Your task to perform on an android device: turn on wifi Image 0: 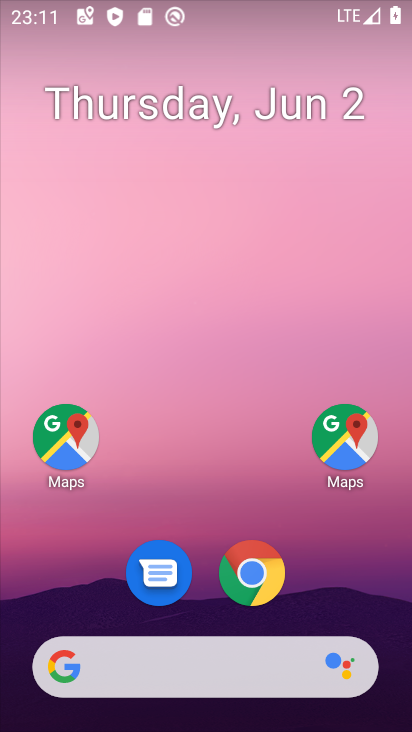
Step 0: drag from (264, 460) to (280, 147)
Your task to perform on an android device: turn on wifi Image 1: 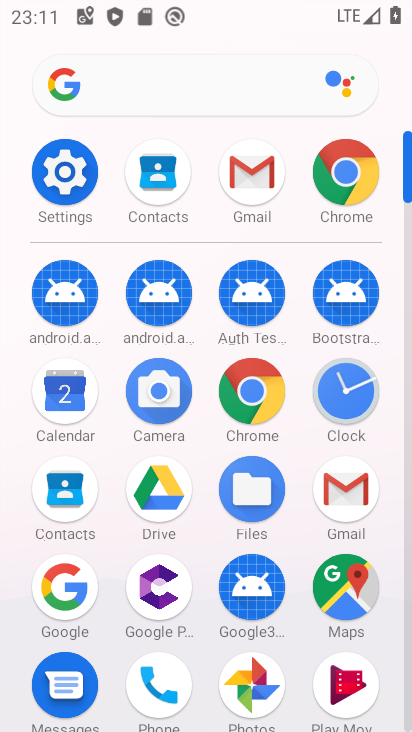
Step 1: click (72, 187)
Your task to perform on an android device: turn on wifi Image 2: 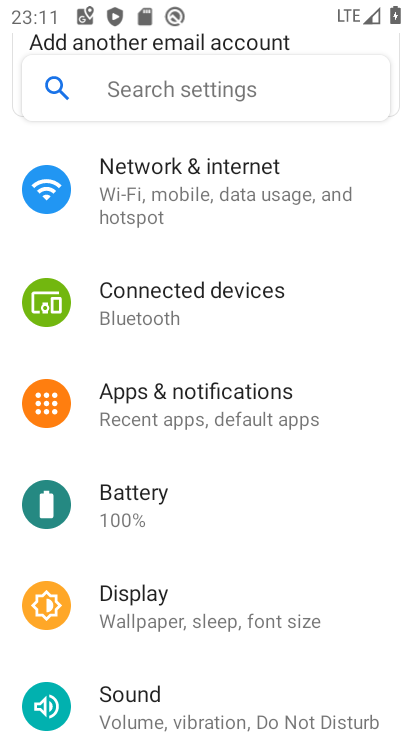
Step 2: click (78, 179)
Your task to perform on an android device: turn on wifi Image 3: 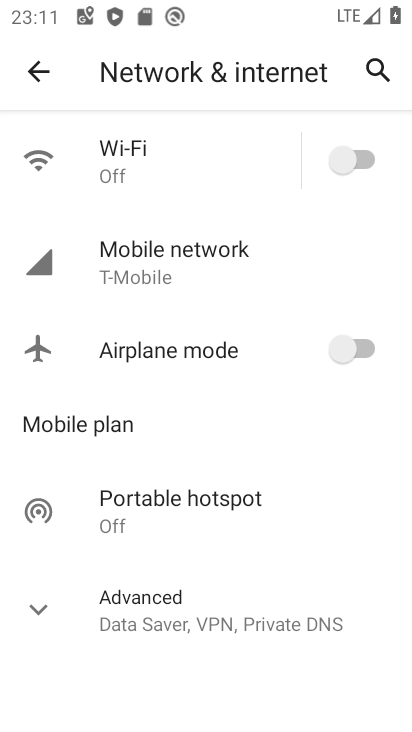
Step 3: click (280, 159)
Your task to perform on an android device: turn on wifi Image 4: 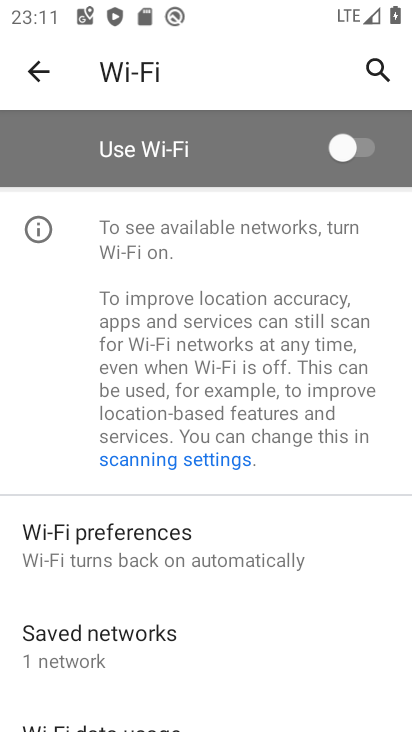
Step 4: click (382, 137)
Your task to perform on an android device: turn on wifi Image 5: 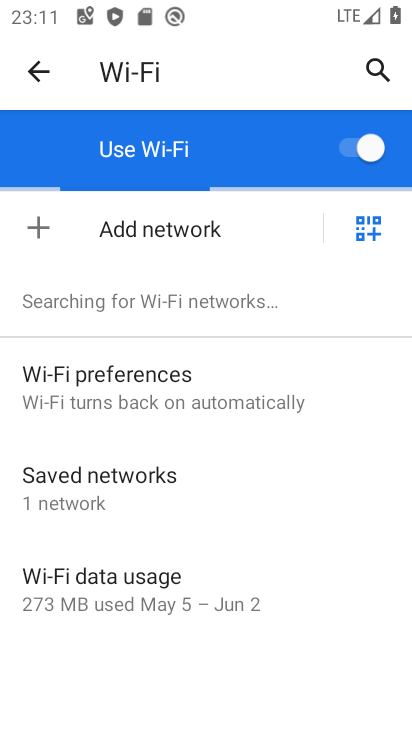
Step 5: task complete